Your task to perform on an android device: turn on javascript in the chrome app Image 0: 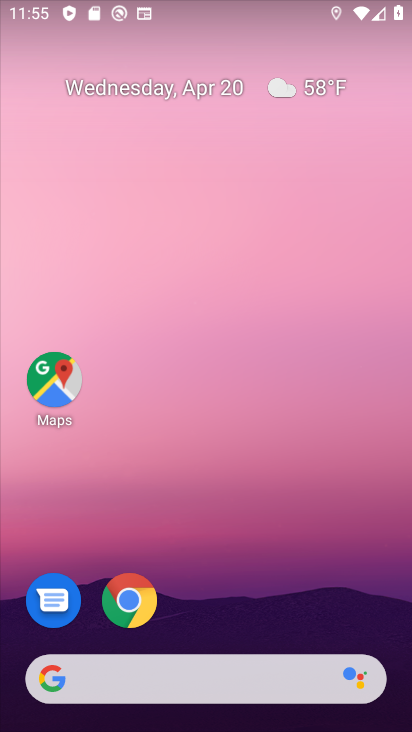
Step 0: drag from (198, 603) to (395, 611)
Your task to perform on an android device: turn on javascript in the chrome app Image 1: 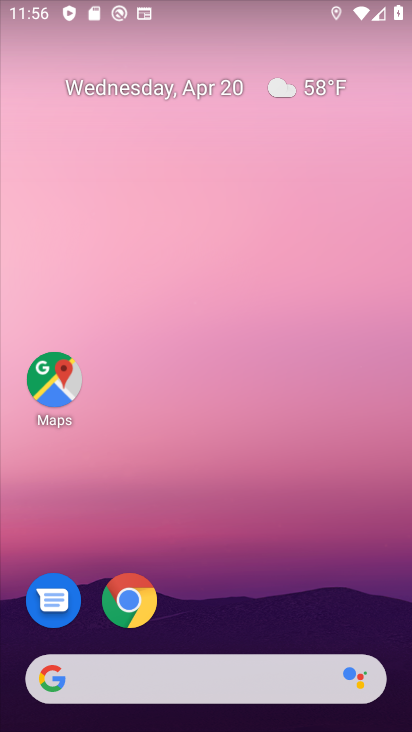
Step 1: click (128, 603)
Your task to perform on an android device: turn on javascript in the chrome app Image 2: 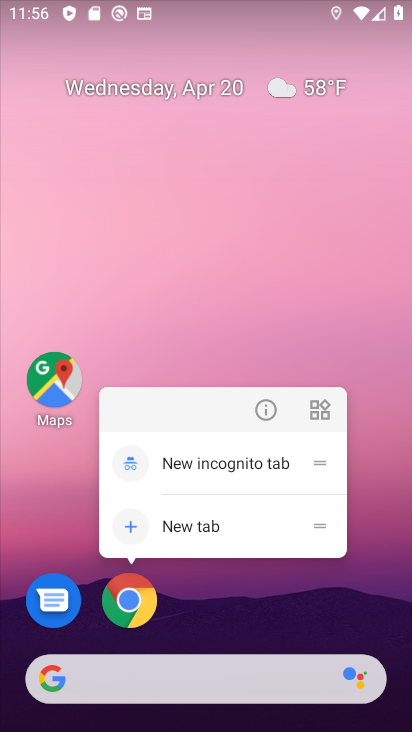
Step 2: click (133, 597)
Your task to perform on an android device: turn on javascript in the chrome app Image 3: 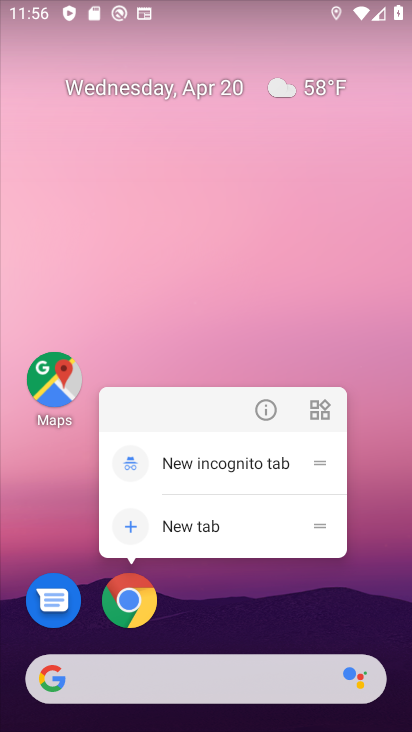
Step 3: click (133, 597)
Your task to perform on an android device: turn on javascript in the chrome app Image 4: 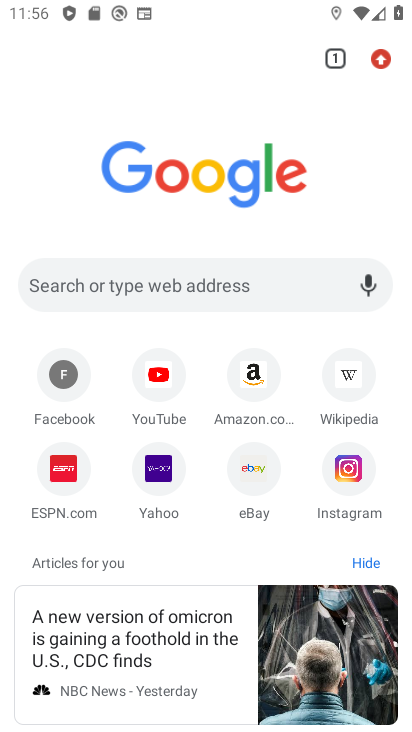
Step 4: drag from (383, 52) to (188, 551)
Your task to perform on an android device: turn on javascript in the chrome app Image 5: 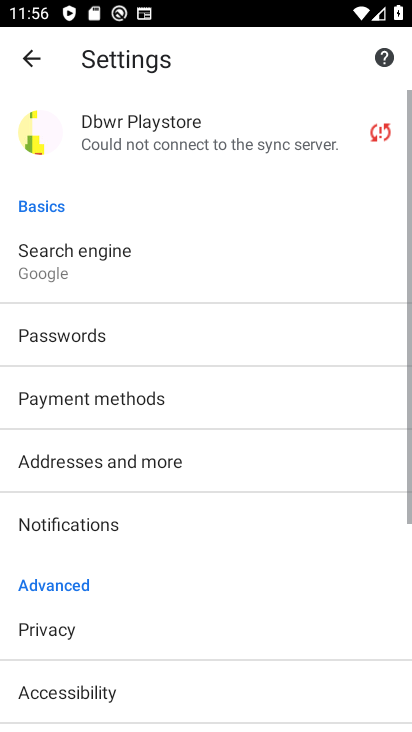
Step 5: drag from (195, 551) to (153, 144)
Your task to perform on an android device: turn on javascript in the chrome app Image 6: 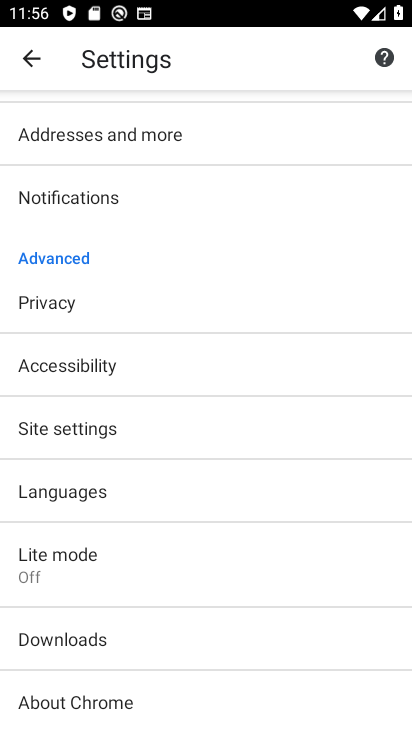
Step 6: click (32, 429)
Your task to perform on an android device: turn on javascript in the chrome app Image 7: 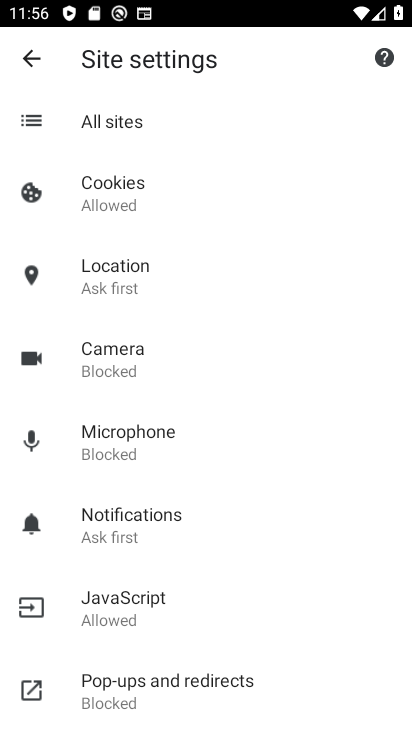
Step 7: click (134, 616)
Your task to perform on an android device: turn on javascript in the chrome app Image 8: 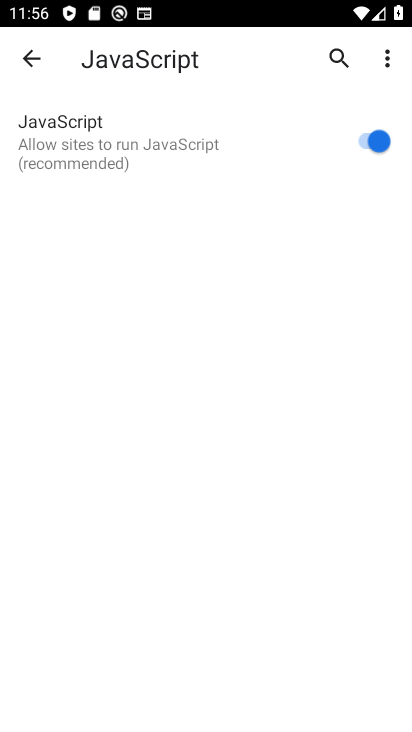
Step 8: task complete